Your task to perform on an android device: open a bookmark in the chrome app Image 0: 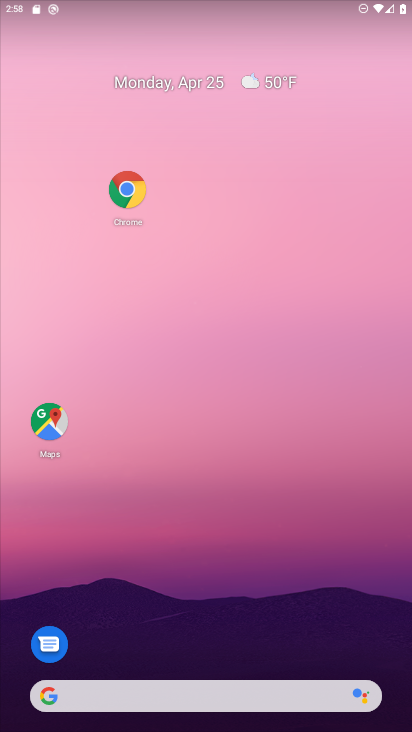
Step 0: click (127, 192)
Your task to perform on an android device: open a bookmark in the chrome app Image 1: 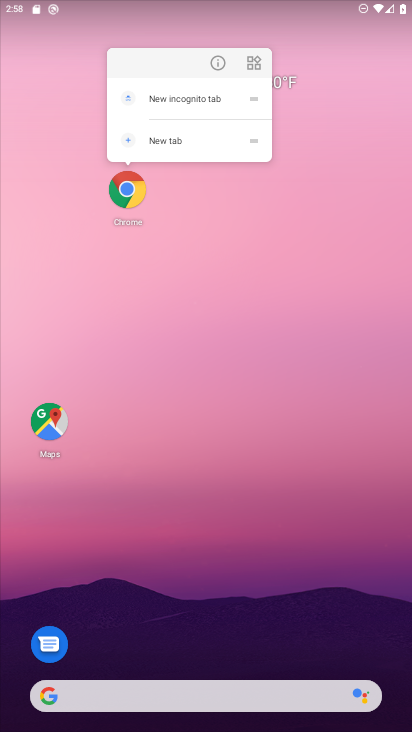
Step 1: click (216, 55)
Your task to perform on an android device: open a bookmark in the chrome app Image 2: 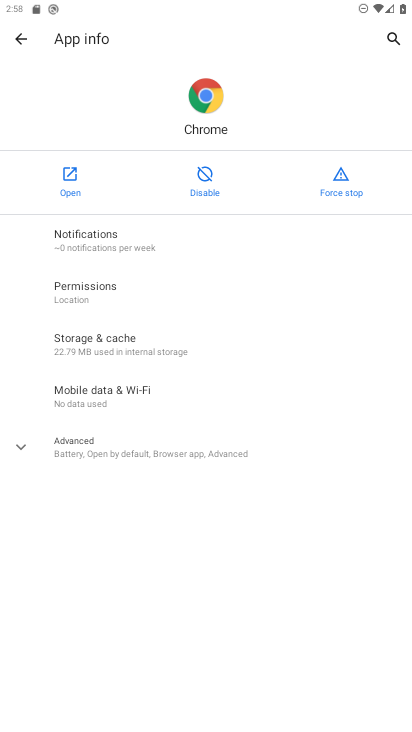
Step 2: click (61, 171)
Your task to perform on an android device: open a bookmark in the chrome app Image 3: 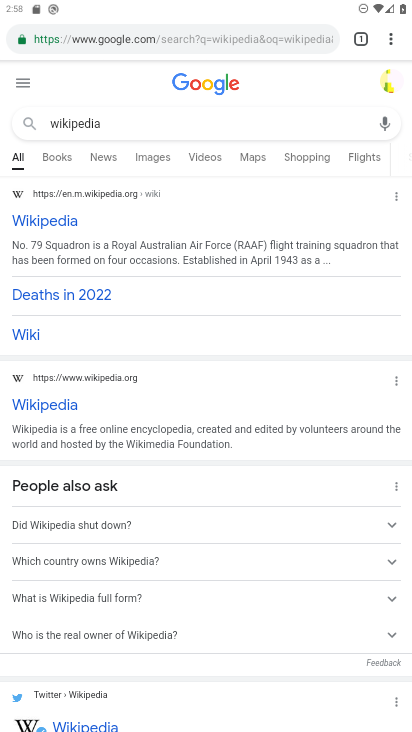
Step 3: click (390, 34)
Your task to perform on an android device: open a bookmark in the chrome app Image 4: 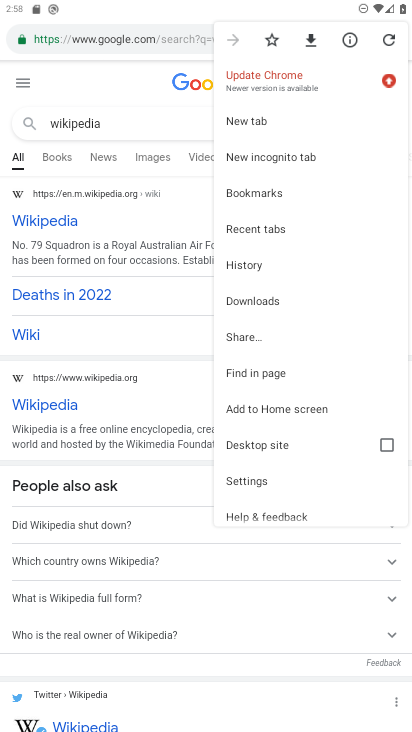
Step 4: click (293, 193)
Your task to perform on an android device: open a bookmark in the chrome app Image 5: 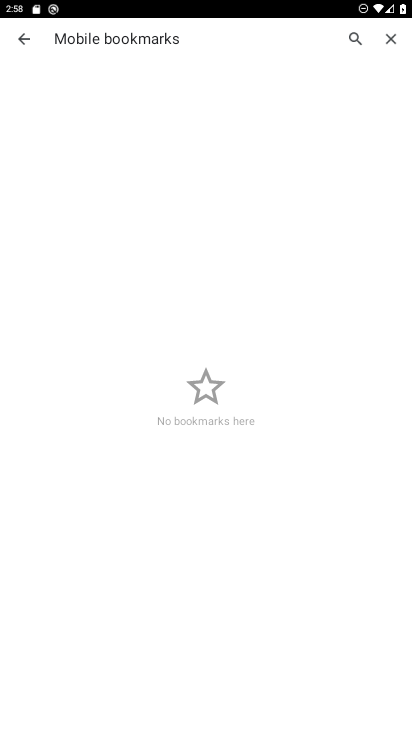
Step 5: task complete